Your task to perform on an android device: check storage Image 0: 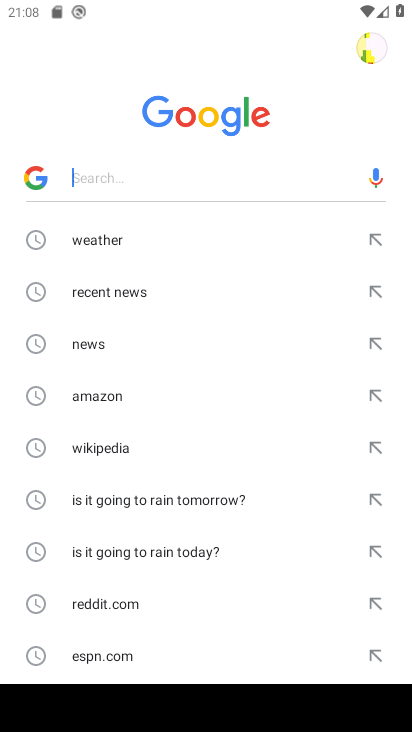
Step 0: press home button
Your task to perform on an android device: check storage Image 1: 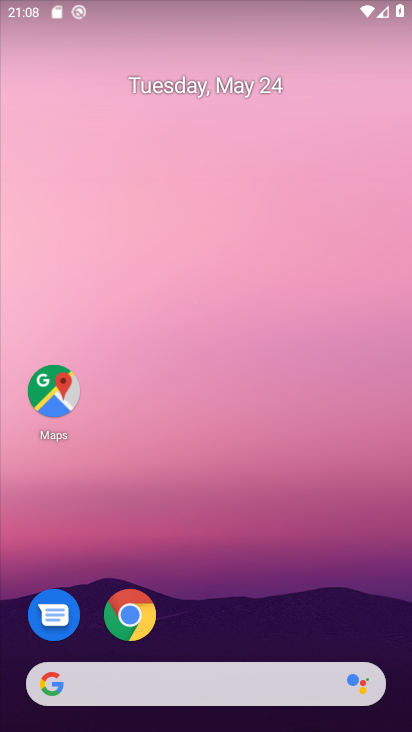
Step 1: drag from (230, 615) to (218, 277)
Your task to perform on an android device: check storage Image 2: 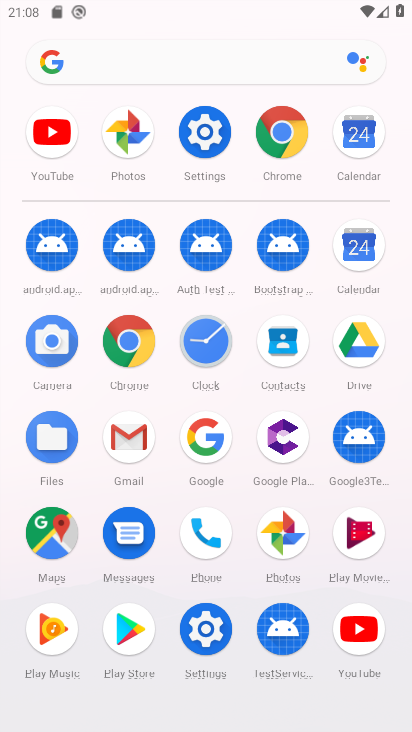
Step 2: click (194, 123)
Your task to perform on an android device: check storage Image 3: 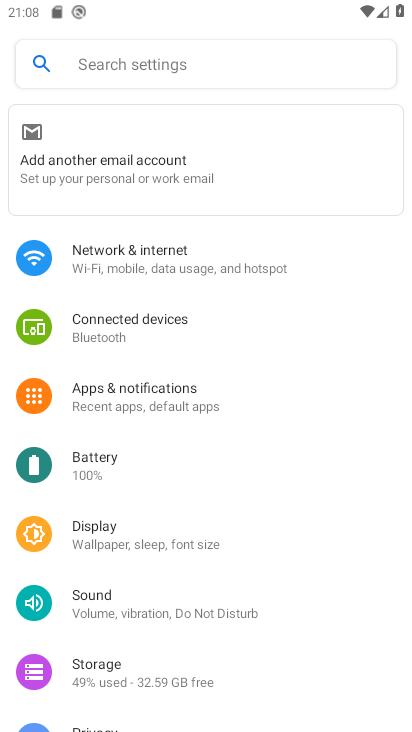
Step 3: drag from (200, 608) to (222, 323)
Your task to perform on an android device: check storage Image 4: 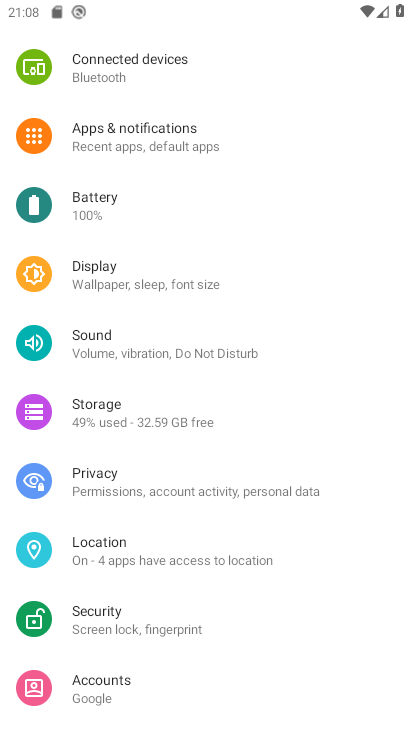
Step 4: click (120, 411)
Your task to perform on an android device: check storage Image 5: 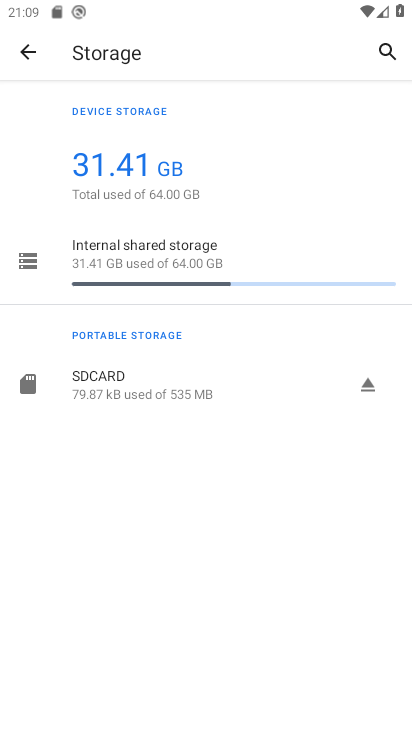
Step 5: task complete